Your task to perform on an android device: Search for sushi restaurants on Maps Image 0: 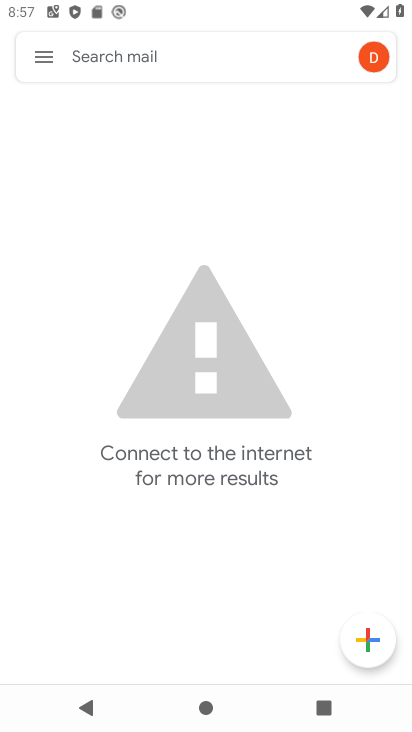
Step 0: press home button
Your task to perform on an android device: Search for sushi restaurants on Maps Image 1: 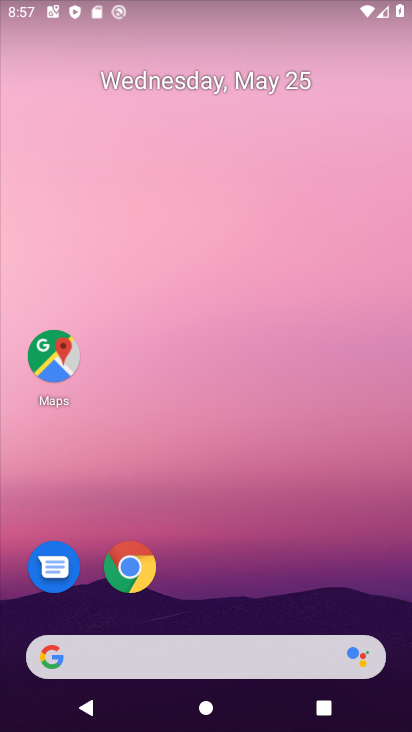
Step 1: click (50, 346)
Your task to perform on an android device: Search for sushi restaurants on Maps Image 2: 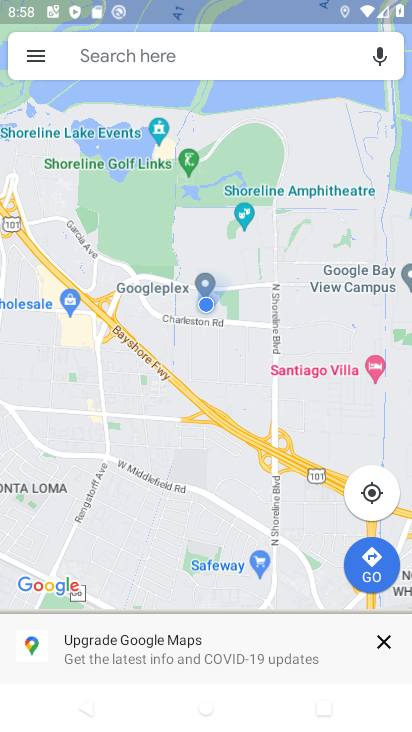
Step 2: click (135, 46)
Your task to perform on an android device: Search for sushi restaurants on Maps Image 3: 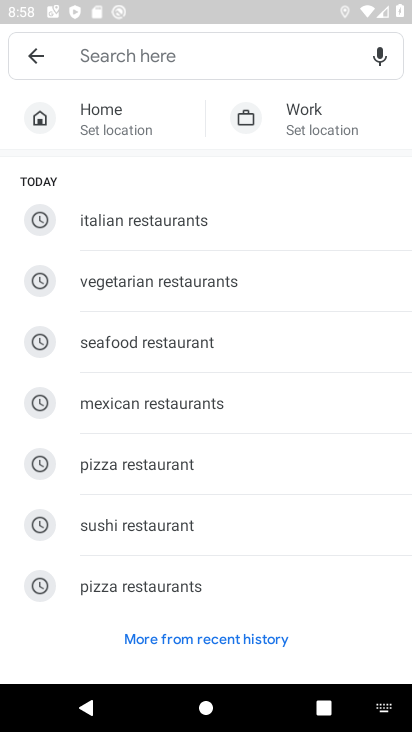
Step 3: click (151, 520)
Your task to perform on an android device: Search for sushi restaurants on Maps Image 4: 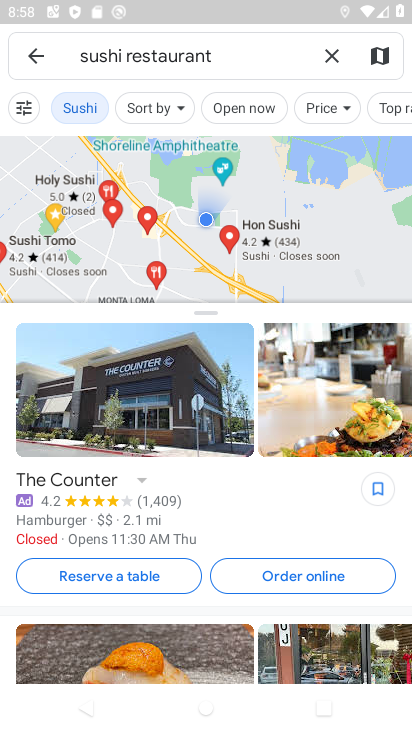
Step 4: task complete